Your task to perform on an android device: Open Google Chrome Image 0: 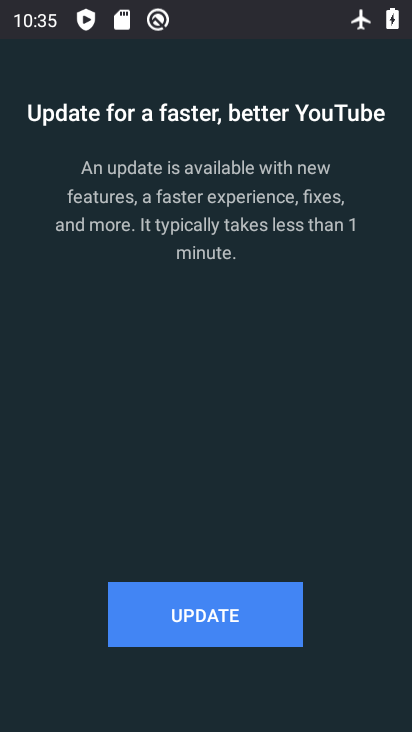
Step 0: press back button
Your task to perform on an android device: Open Google Chrome Image 1: 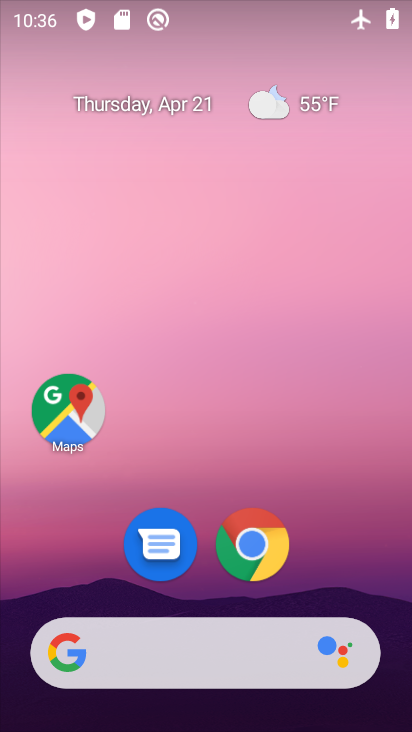
Step 1: click (256, 541)
Your task to perform on an android device: Open Google Chrome Image 2: 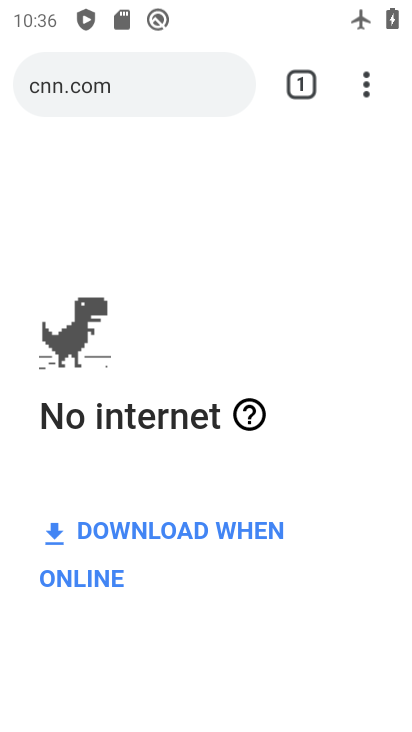
Step 2: task complete